Your task to perform on an android device: check google app version Image 0: 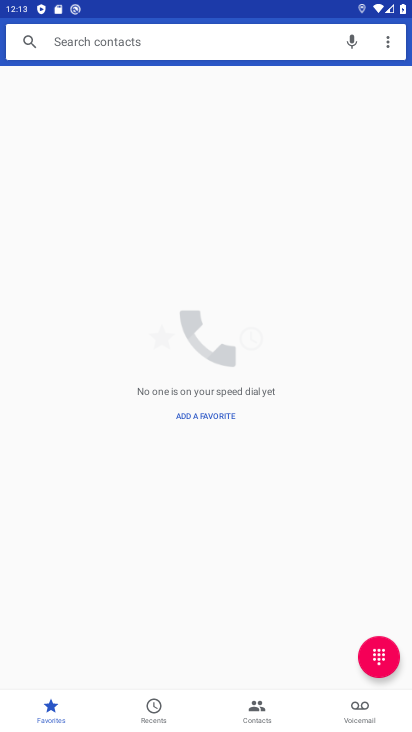
Step 0: press home button
Your task to perform on an android device: check google app version Image 1: 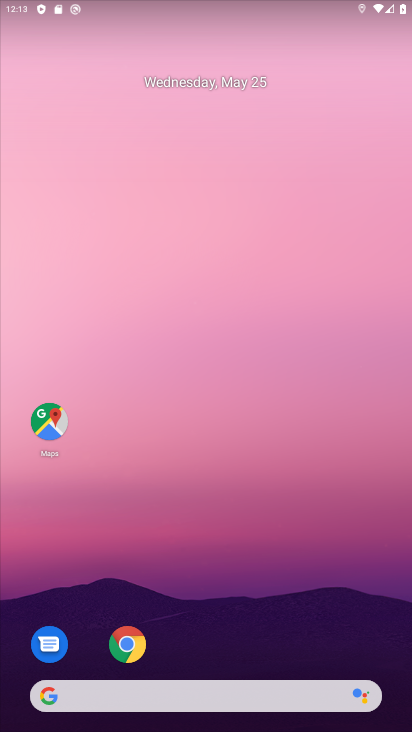
Step 1: drag from (224, 600) to (203, 153)
Your task to perform on an android device: check google app version Image 2: 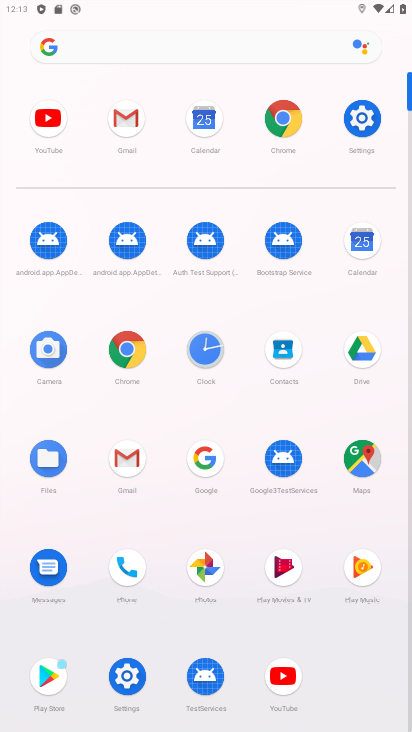
Step 2: click (50, 43)
Your task to perform on an android device: check google app version Image 3: 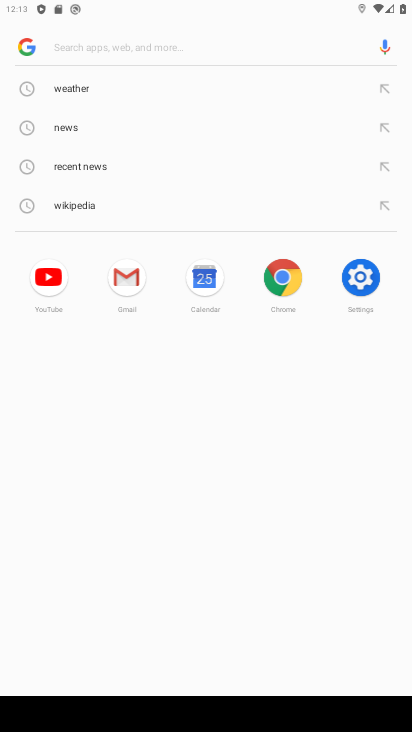
Step 3: click (24, 50)
Your task to perform on an android device: check google app version Image 4: 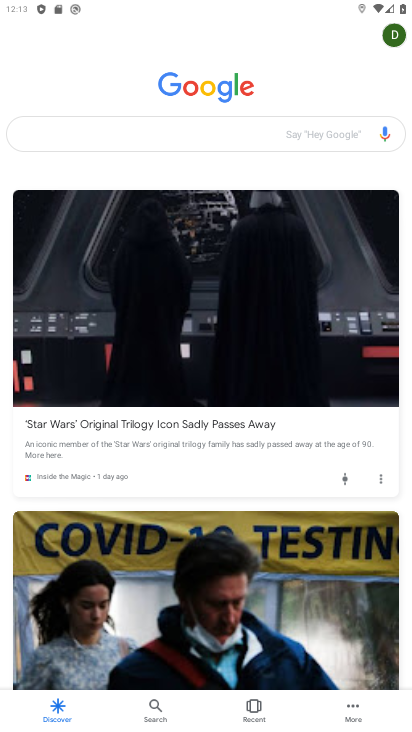
Step 4: click (348, 707)
Your task to perform on an android device: check google app version Image 5: 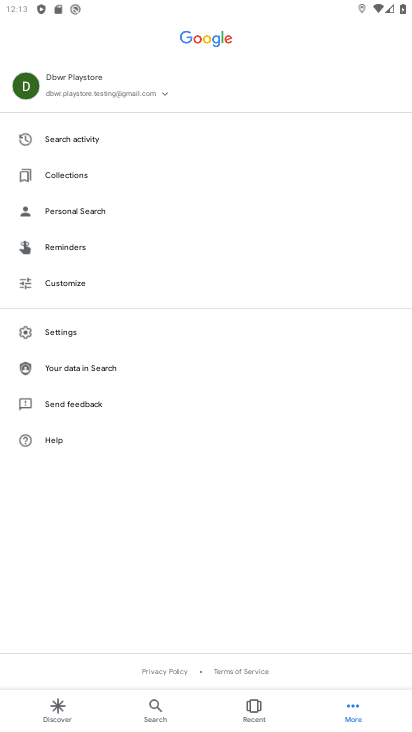
Step 5: click (59, 331)
Your task to perform on an android device: check google app version Image 6: 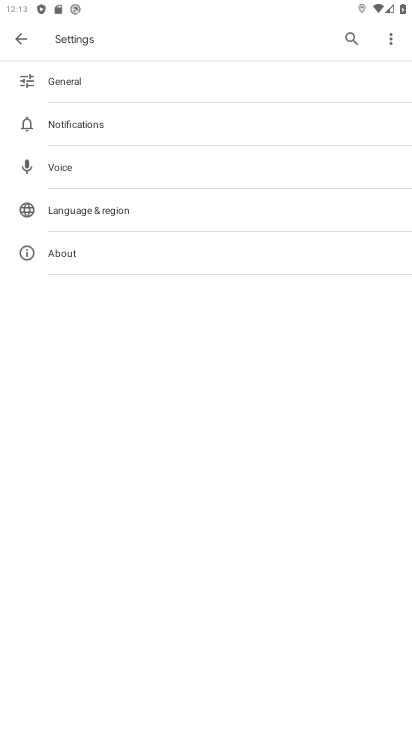
Step 6: click (62, 246)
Your task to perform on an android device: check google app version Image 7: 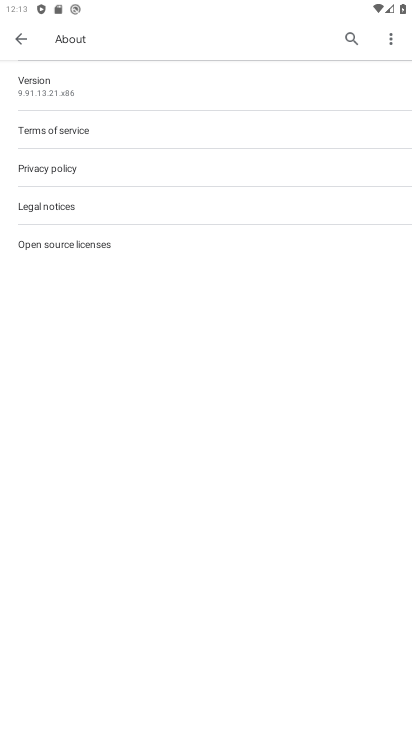
Step 7: task complete